Your task to perform on an android device: Open Google Maps Image 0: 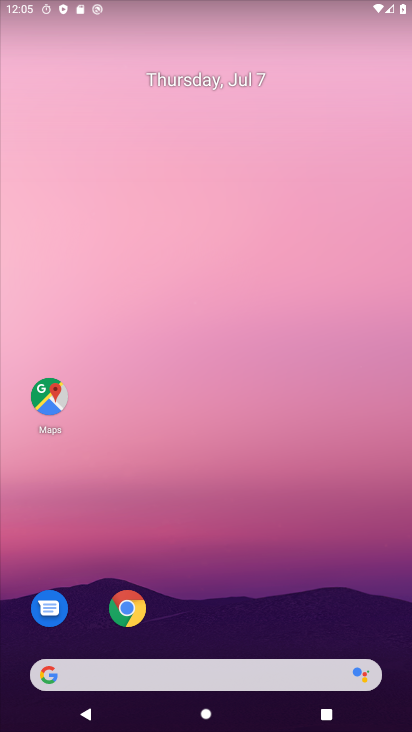
Step 0: drag from (304, 670) to (376, 0)
Your task to perform on an android device: Open Google Maps Image 1: 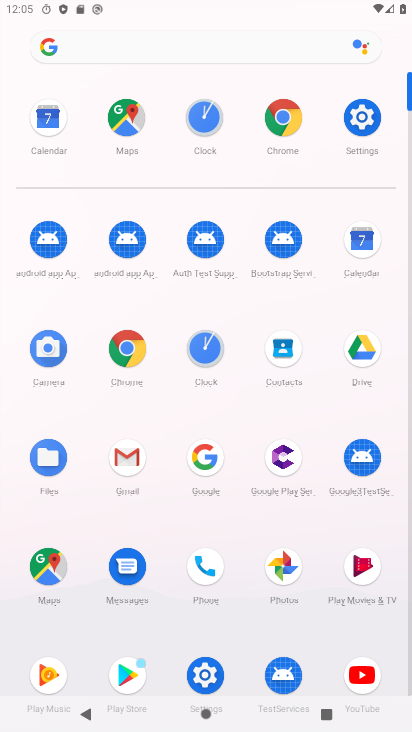
Step 1: click (44, 568)
Your task to perform on an android device: Open Google Maps Image 2: 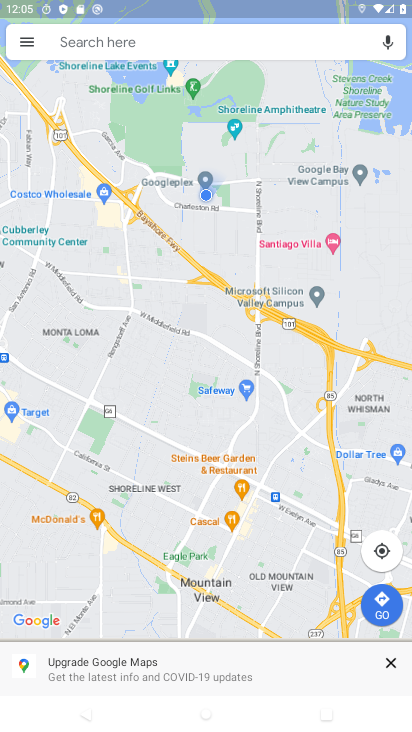
Step 2: task complete